Your task to perform on an android device: make emails show in primary in the gmail app Image 0: 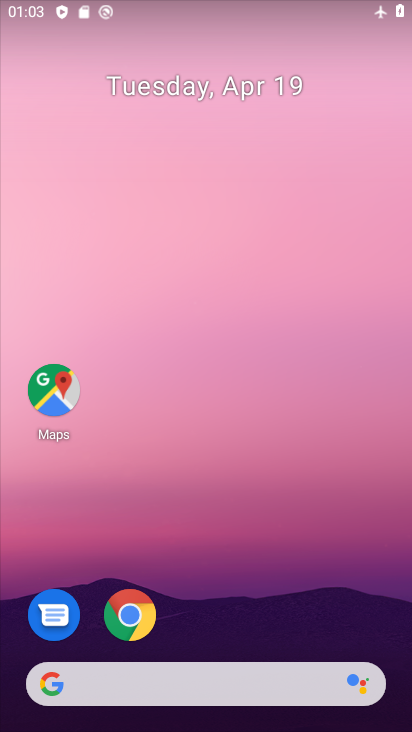
Step 0: drag from (289, 608) to (280, 208)
Your task to perform on an android device: make emails show in primary in the gmail app Image 1: 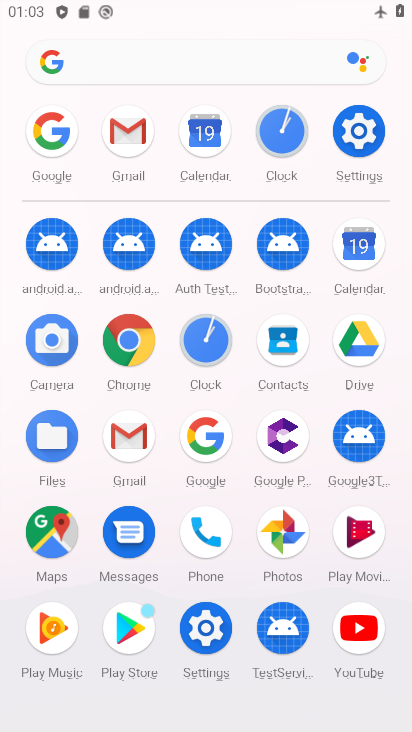
Step 1: click (141, 442)
Your task to perform on an android device: make emails show in primary in the gmail app Image 2: 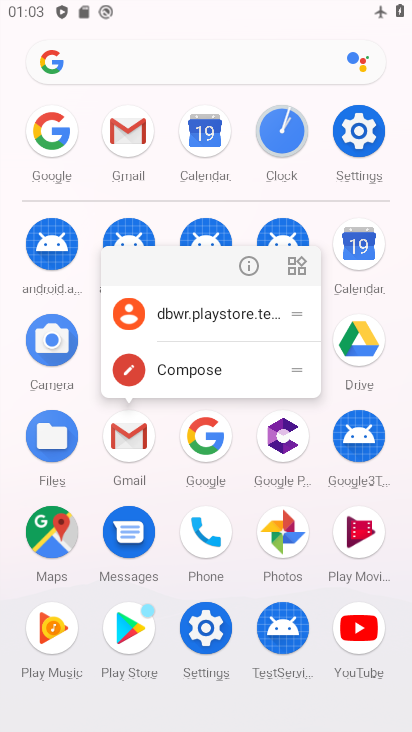
Step 2: click (121, 443)
Your task to perform on an android device: make emails show in primary in the gmail app Image 3: 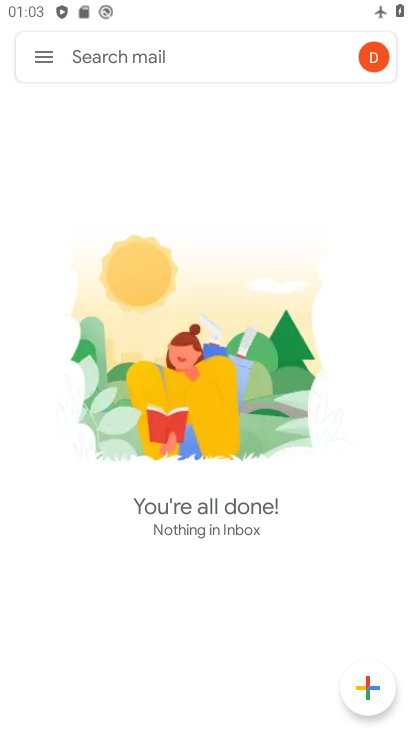
Step 3: click (38, 47)
Your task to perform on an android device: make emails show in primary in the gmail app Image 4: 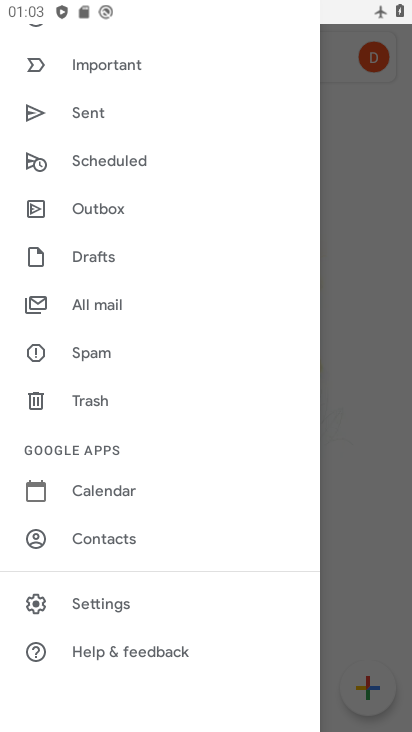
Step 4: drag from (239, 194) to (204, 645)
Your task to perform on an android device: make emails show in primary in the gmail app Image 5: 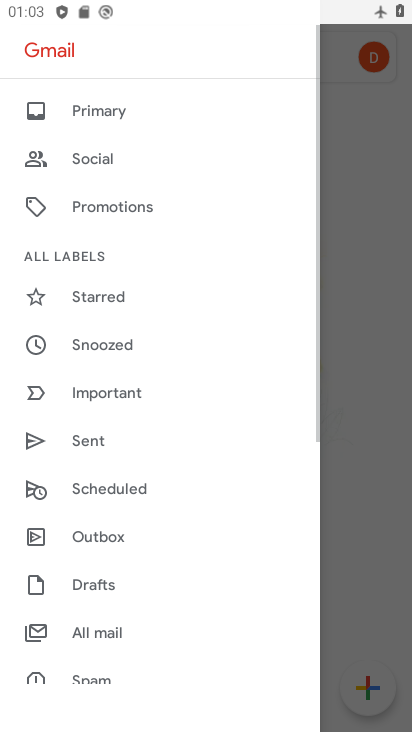
Step 5: click (120, 109)
Your task to perform on an android device: make emails show in primary in the gmail app Image 6: 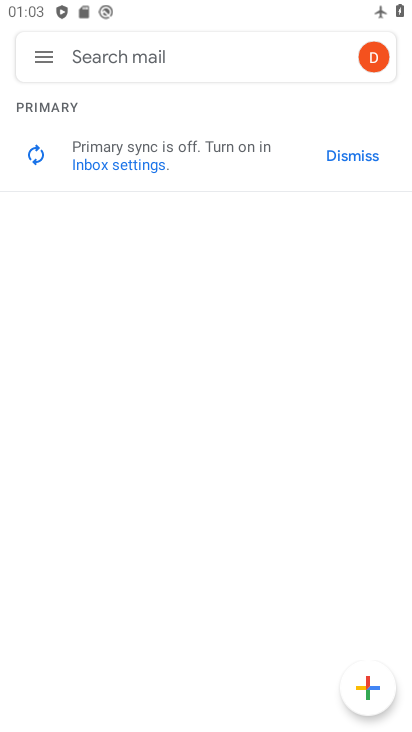
Step 6: task complete